Your task to perform on an android device: What's on my calendar tomorrow? Image 0: 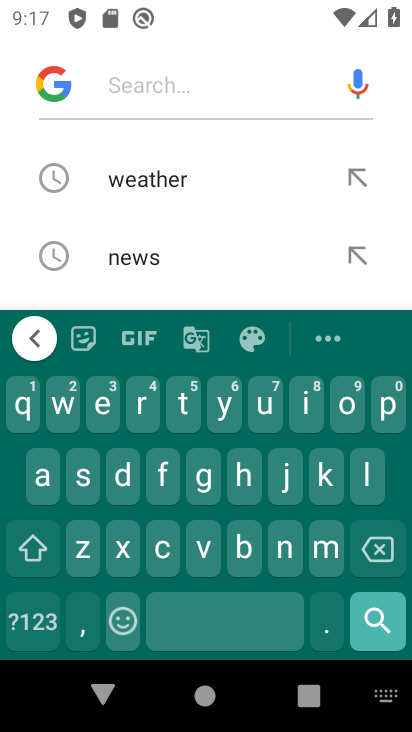
Step 0: press home button
Your task to perform on an android device: What's on my calendar tomorrow? Image 1: 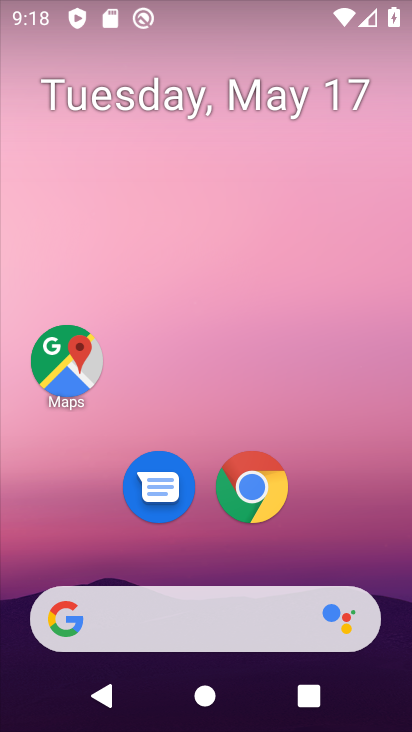
Step 1: drag from (257, 663) to (221, 369)
Your task to perform on an android device: What's on my calendar tomorrow? Image 2: 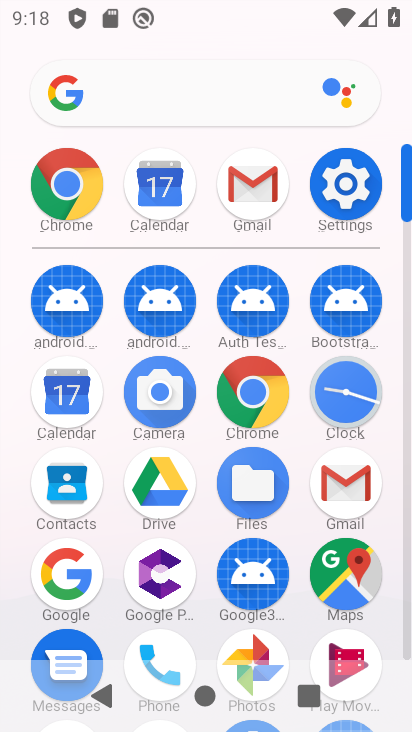
Step 2: click (71, 401)
Your task to perform on an android device: What's on my calendar tomorrow? Image 3: 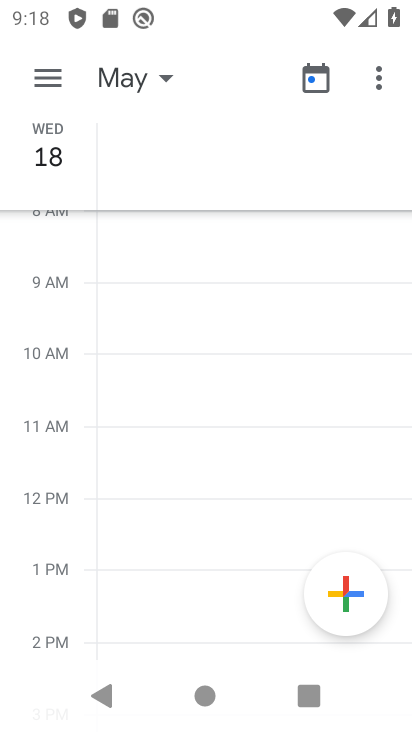
Step 3: click (50, 82)
Your task to perform on an android device: What's on my calendar tomorrow? Image 4: 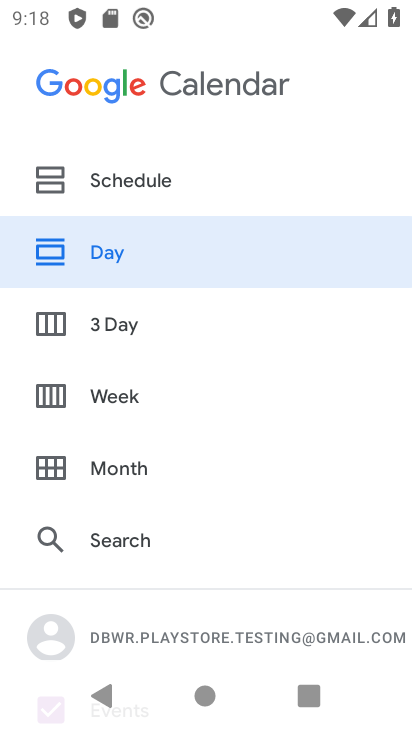
Step 4: click (140, 189)
Your task to perform on an android device: What's on my calendar tomorrow? Image 5: 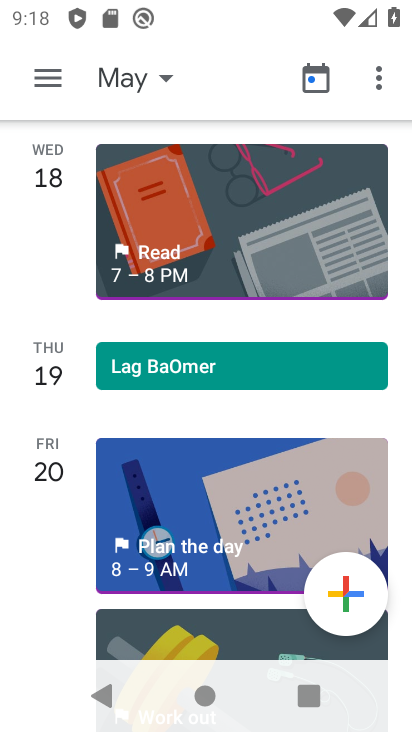
Step 5: task complete